Your task to perform on an android device: delete location history Image 0: 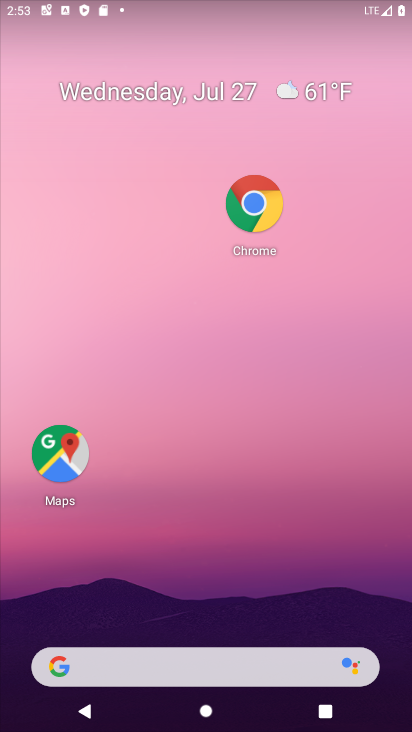
Step 0: click (31, 463)
Your task to perform on an android device: delete location history Image 1: 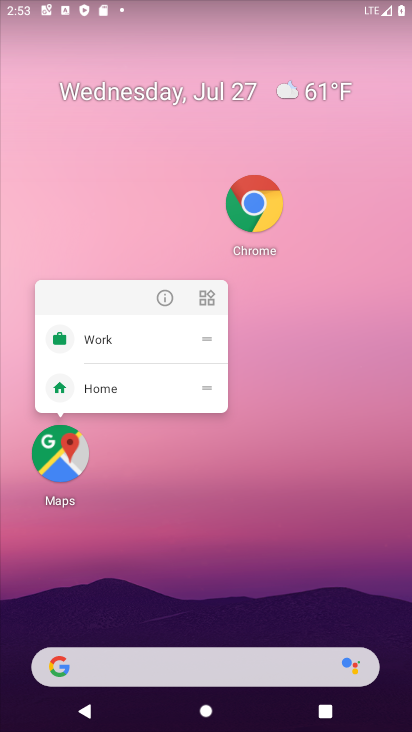
Step 1: click (62, 462)
Your task to perform on an android device: delete location history Image 2: 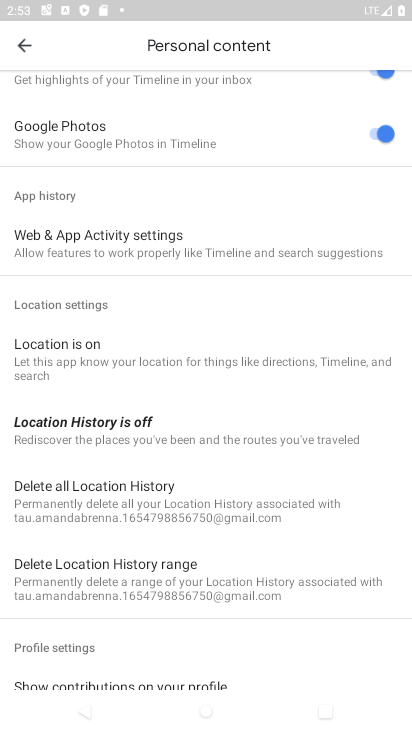
Step 2: click (146, 508)
Your task to perform on an android device: delete location history Image 3: 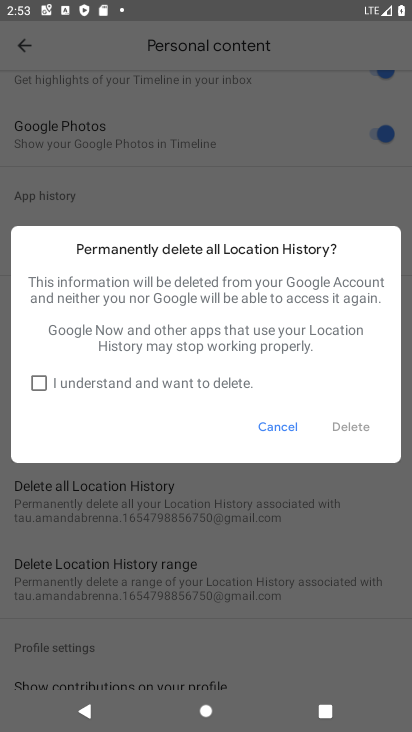
Step 3: click (169, 376)
Your task to perform on an android device: delete location history Image 4: 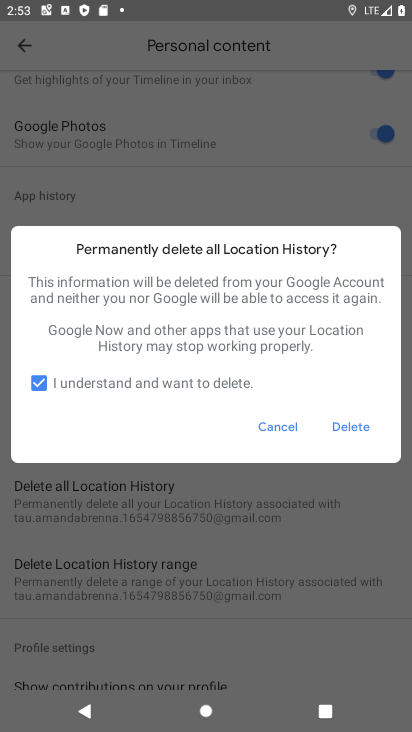
Step 4: click (350, 432)
Your task to perform on an android device: delete location history Image 5: 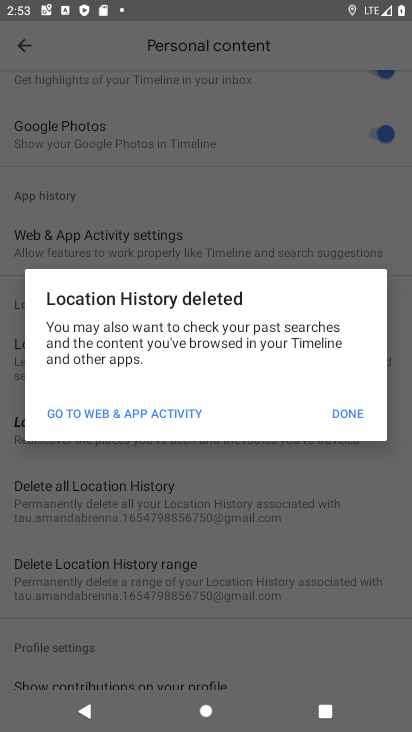
Step 5: task complete